Your task to perform on an android device: manage bookmarks in the chrome app Image 0: 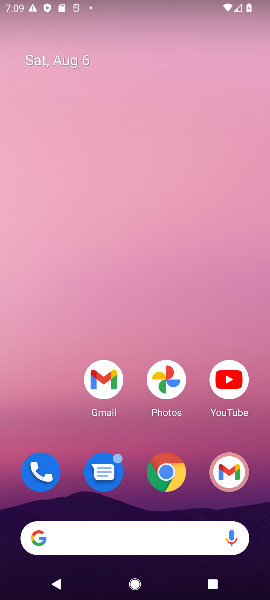
Step 0: click (169, 473)
Your task to perform on an android device: manage bookmarks in the chrome app Image 1: 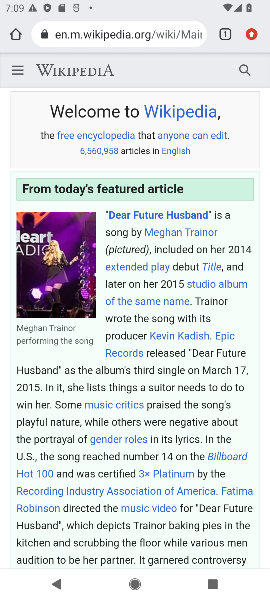
Step 1: click (247, 33)
Your task to perform on an android device: manage bookmarks in the chrome app Image 2: 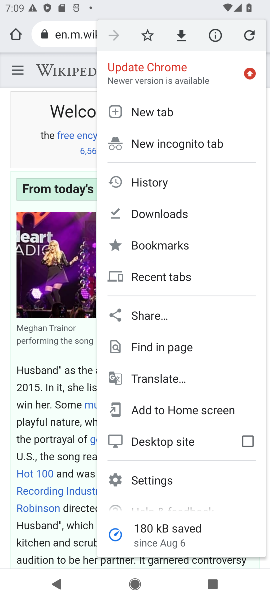
Step 2: click (147, 244)
Your task to perform on an android device: manage bookmarks in the chrome app Image 3: 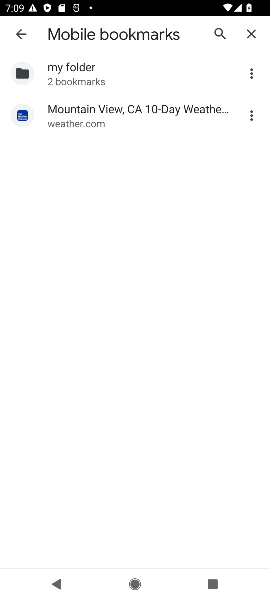
Step 3: click (91, 115)
Your task to perform on an android device: manage bookmarks in the chrome app Image 4: 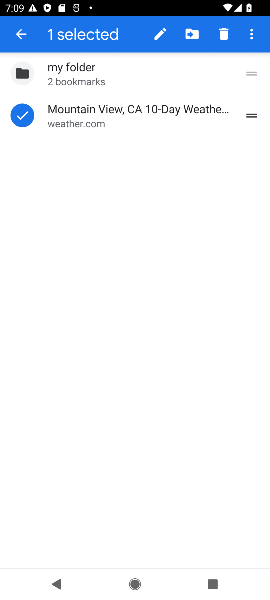
Step 4: click (189, 33)
Your task to perform on an android device: manage bookmarks in the chrome app Image 5: 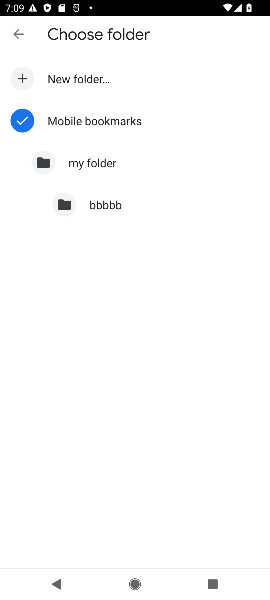
Step 5: click (22, 74)
Your task to perform on an android device: manage bookmarks in the chrome app Image 6: 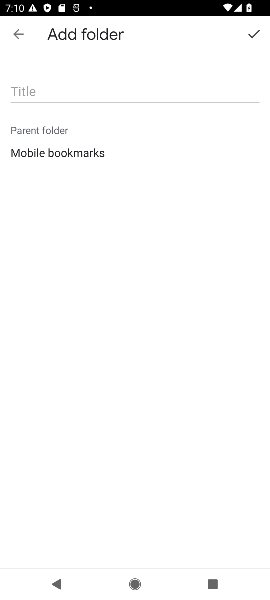
Step 6: click (73, 93)
Your task to perform on an android device: manage bookmarks in the chrome app Image 7: 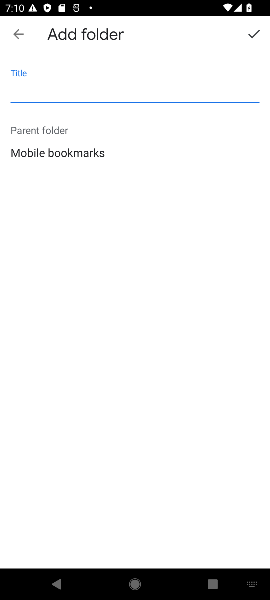
Step 7: type "tvf"
Your task to perform on an android device: manage bookmarks in the chrome app Image 8: 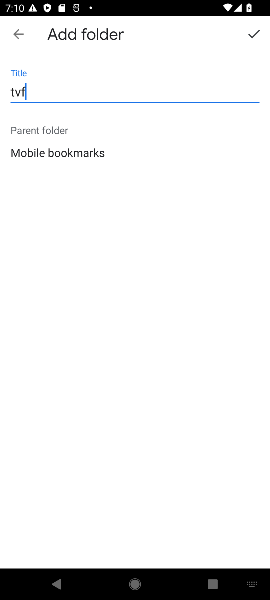
Step 8: click (250, 30)
Your task to perform on an android device: manage bookmarks in the chrome app Image 9: 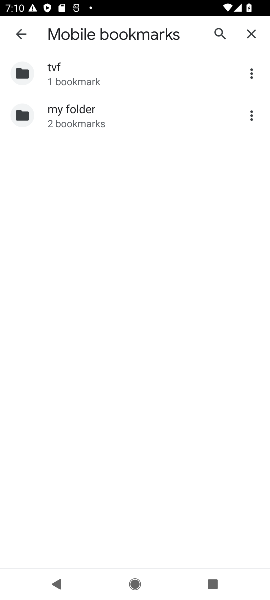
Step 9: task complete